Your task to perform on an android device: empty trash in the gmail app Image 0: 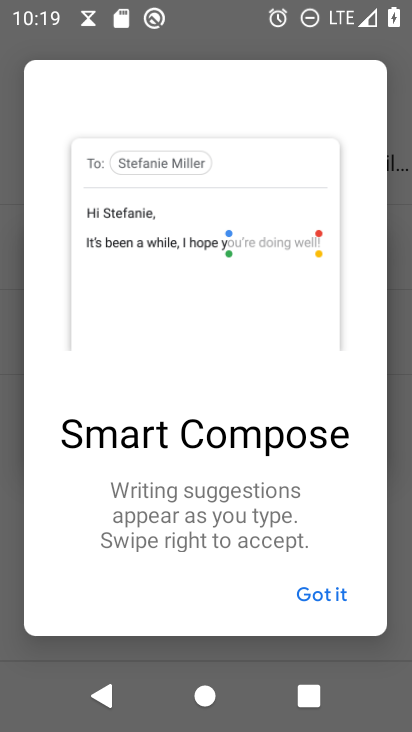
Step 0: press home button
Your task to perform on an android device: empty trash in the gmail app Image 1: 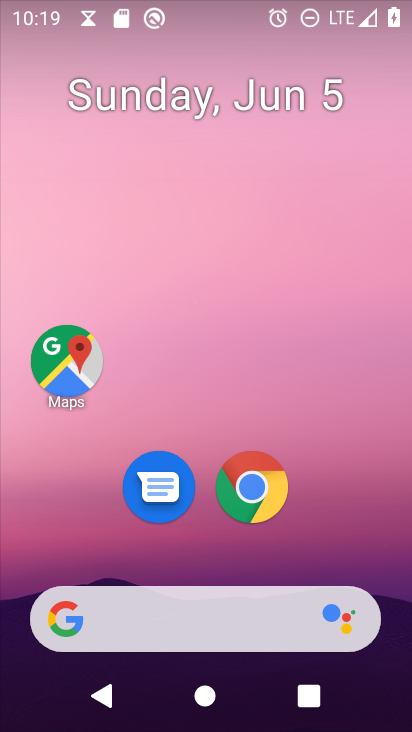
Step 1: drag from (215, 520) to (214, 208)
Your task to perform on an android device: empty trash in the gmail app Image 2: 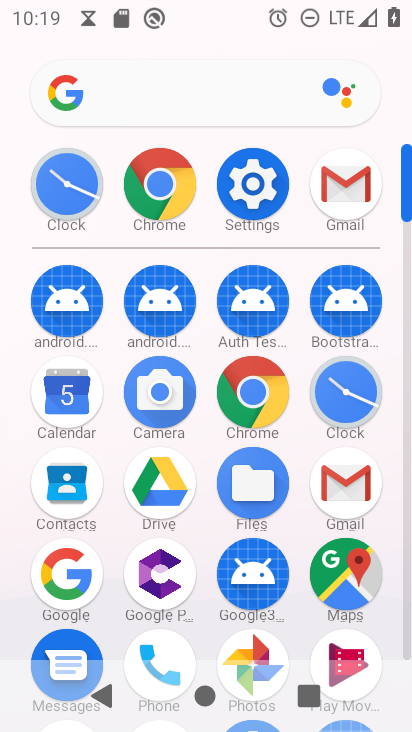
Step 2: click (352, 480)
Your task to perform on an android device: empty trash in the gmail app Image 3: 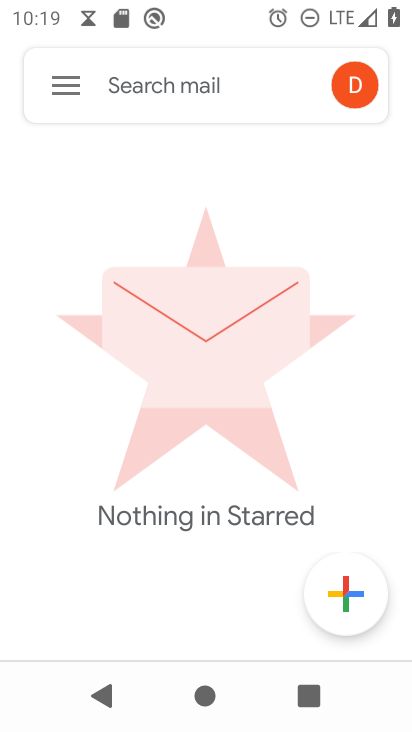
Step 3: click (59, 80)
Your task to perform on an android device: empty trash in the gmail app Image 4: 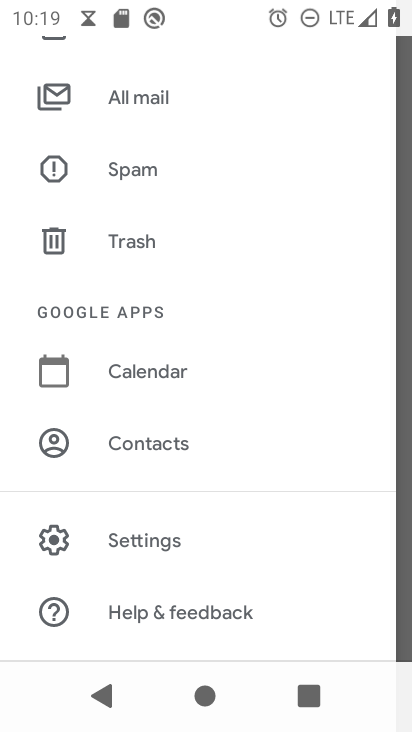
Step 4: click (155, 248)
Your task to perform on an android device: empty trash in the gmail app Image 5: 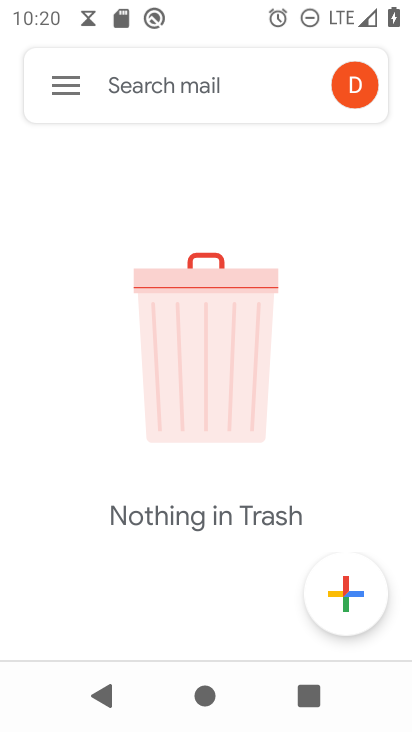
Step 5: task complete